Your task to perform on an android device: Go to Maps Image 0: 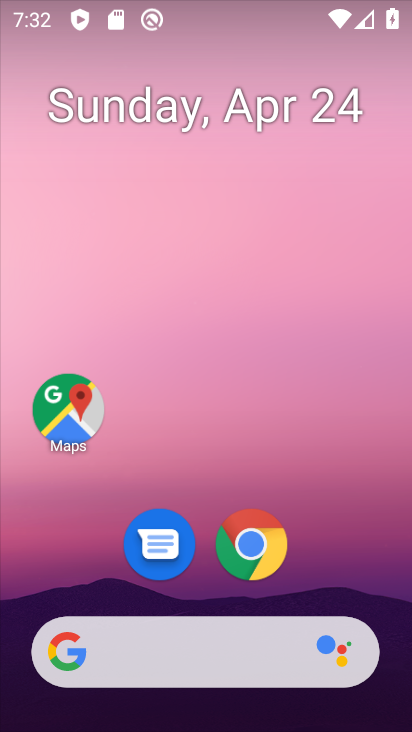
Step 0: drag from (161, 641) to (300, 126)
Your task to perform on an android device: Go to Maps Image 1: 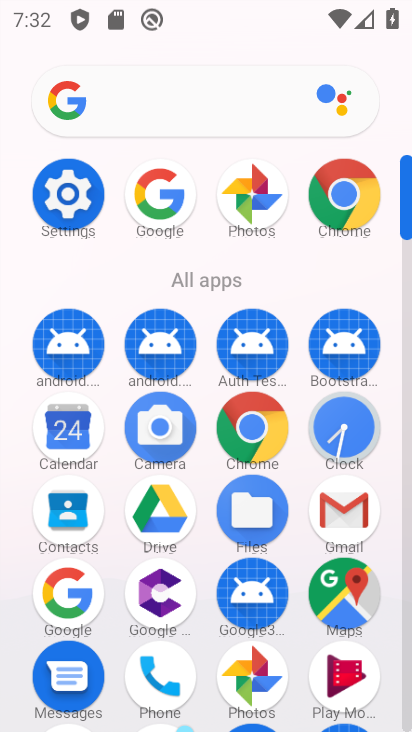
Step 1: click (354, 601)
Your task to perform on an android device: Go to Maps Image 2: 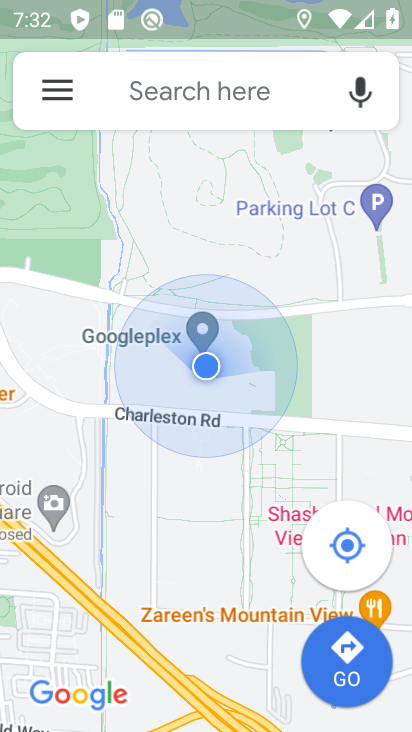
Step 2: task complete